Your task to perform on an android device: Check the news Image 0: 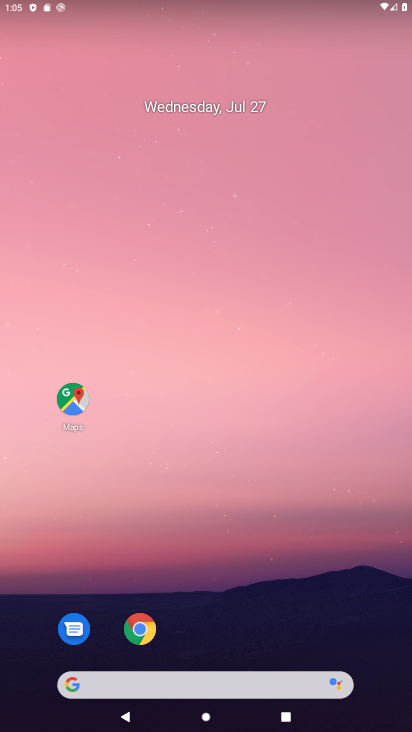
Step 0: press home button
Your task to perform on an android device: Check the news Image 1: 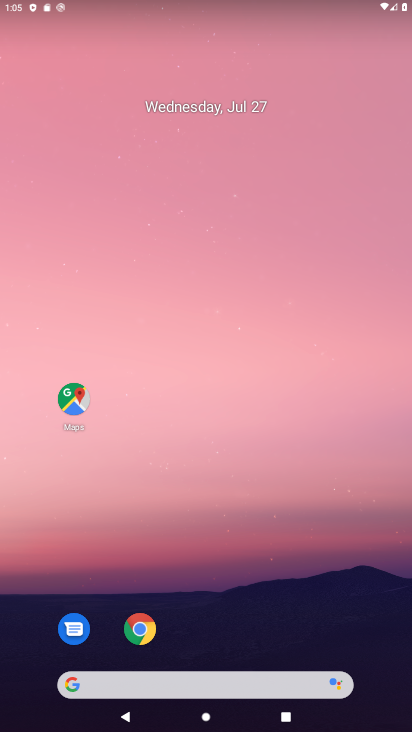
Step 1: click (68, 684)
Your task to perform on an android device: Check the news Image 2: 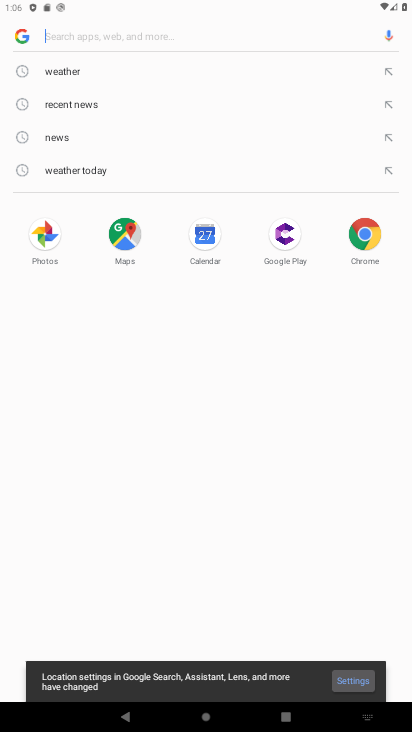
Step 2: click (61, 135)
Your task to perform on an android device: Check the news Image 3: 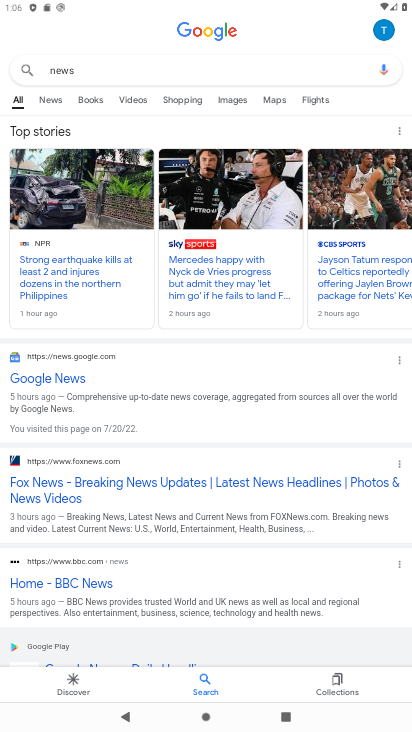
Step 3: task complete